Your task to perform on an android device: Go to Maps Image 0: 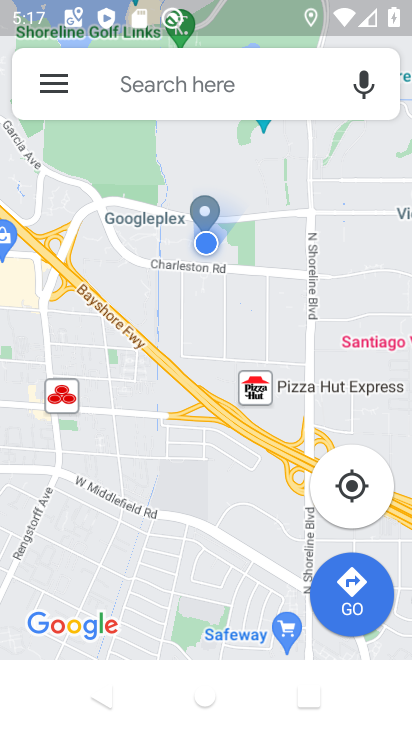
Step 0: task impossible